Your task to perform on an android device: Search for vegetarian restaurants on Maps Image 0: 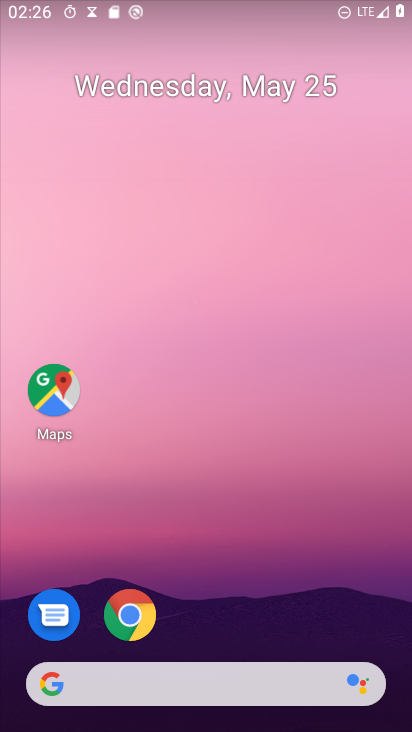
Step 0: drag from (305, 701) to (238, 211)
Your task to perform on an android device: Search for vegetarian restaurants on Maps Image 1: 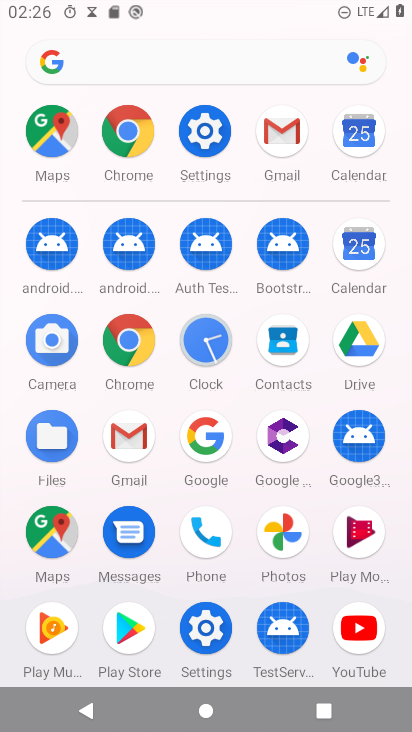
Step 1: click (40, 140)
Your task to perform on an android device: Search for vegetarian restaurants on Maps Image 2: 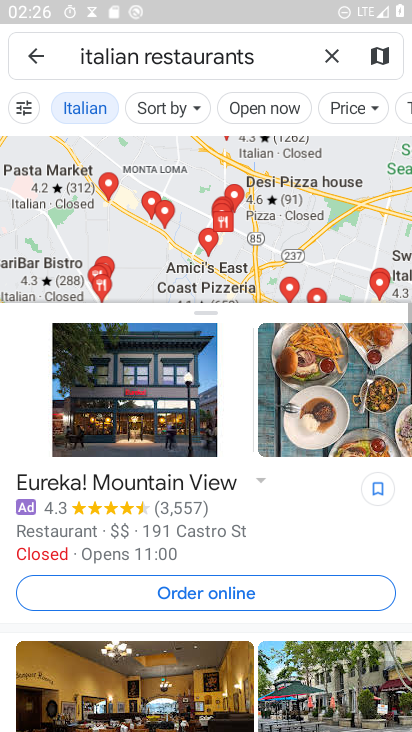
Step 2: click (327, 60)
Your task to perform on an android device: Search for vegetarian restaurants on Maps Image 3: 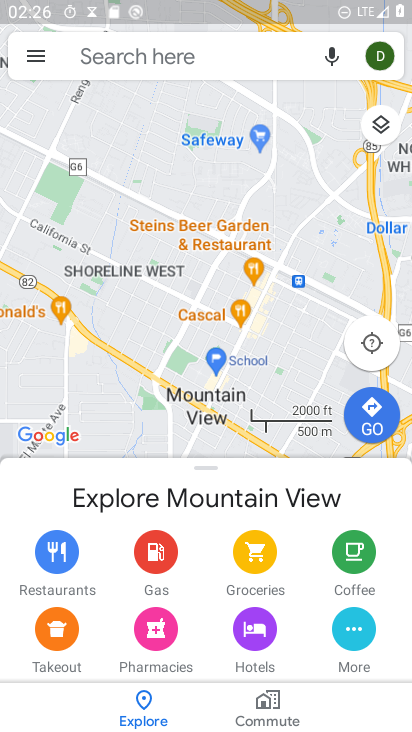
Step 3: click (214, 57)
Your task to perform on an android device: Search for vegetarian restaurants on Maps Image 4: 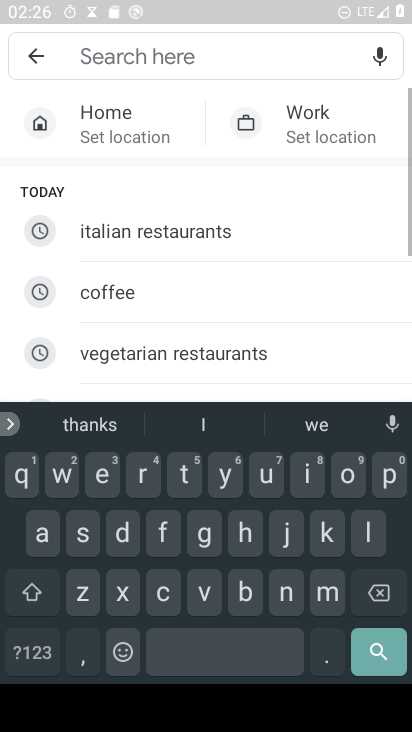
Step 4: click (192, 587)
Your task to perform on an android device: Search for vegetarian restaurants on Maps Image 5: 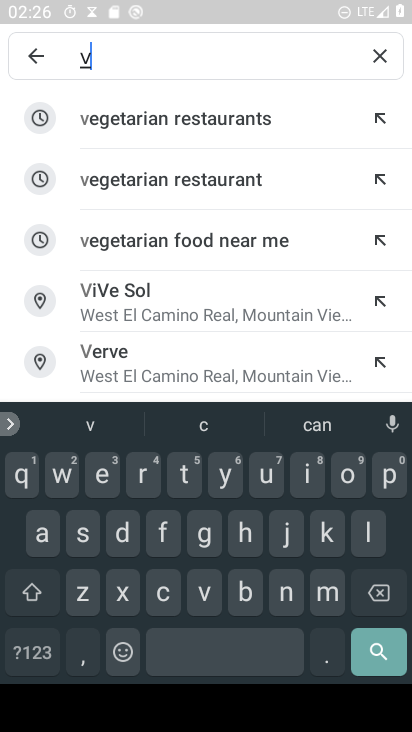
Step 5: click (193, 141)
Your task to perform on an android device: Search for vegetarian restaurants on Maps Image 6: 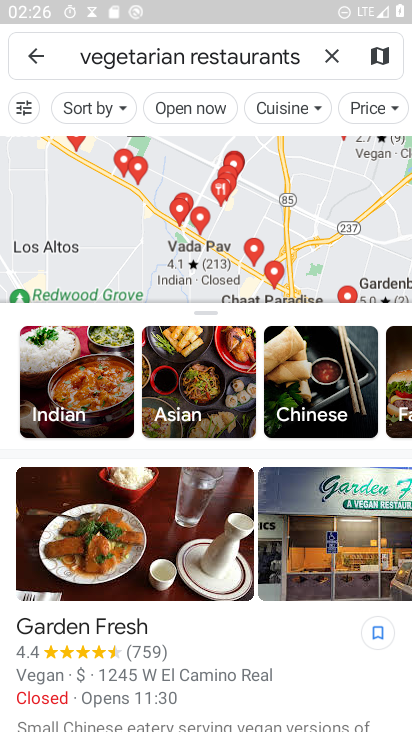
Step 6: task complete